Your task to perform on an android device: add a contact in the contacts app Image 0: 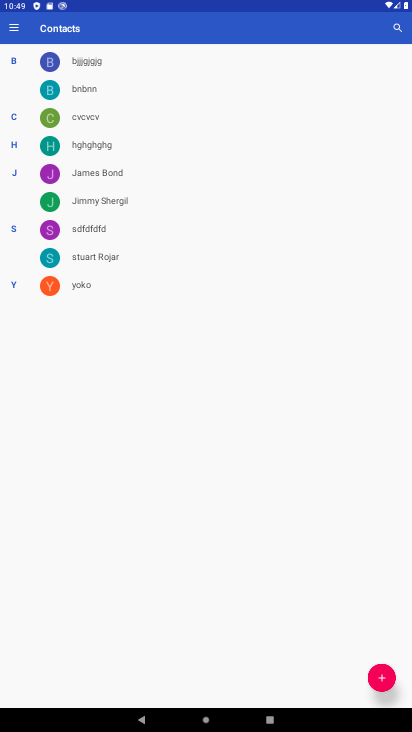
Step 0: press home button
Your task to perform on an android device: add a contact in the contacts app Image 1: 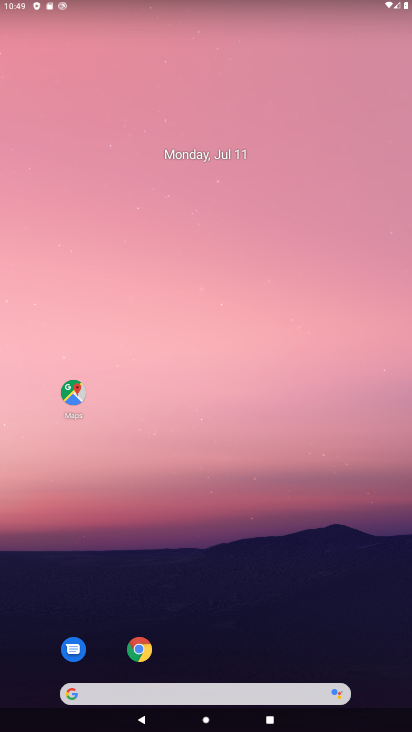
Step 1: drag from (204, 691) to (148, 215)
Your task to perform on an android device: add a contact in the contacts app Image 2: 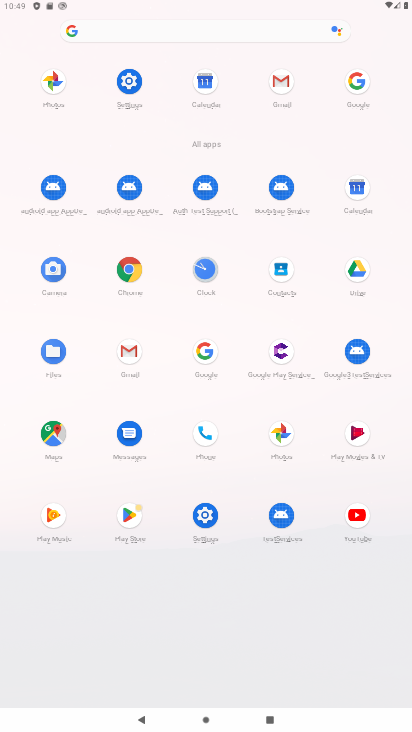
Step 2: click (281, 271)
Your task to perform on an android device: add a contact in the contacts app Image 3: 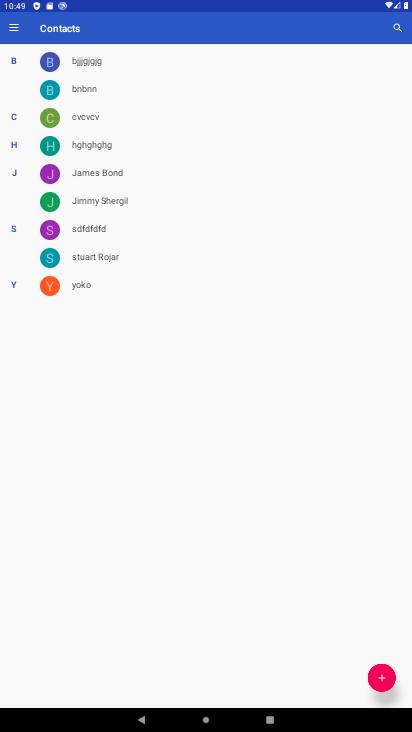
Step 3: click (382, 677)
Your task to perform on an android device: add a contact in the contacts app Image 4: 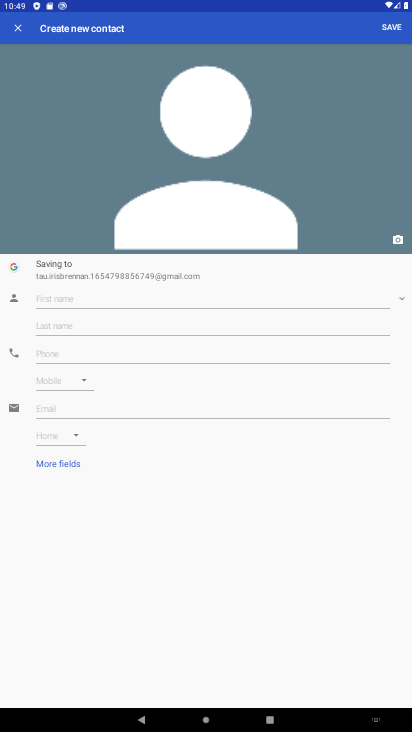
Step 4: click (159, 292)
Your task to perform on an android device: add a contact in the contacts app Image 5: 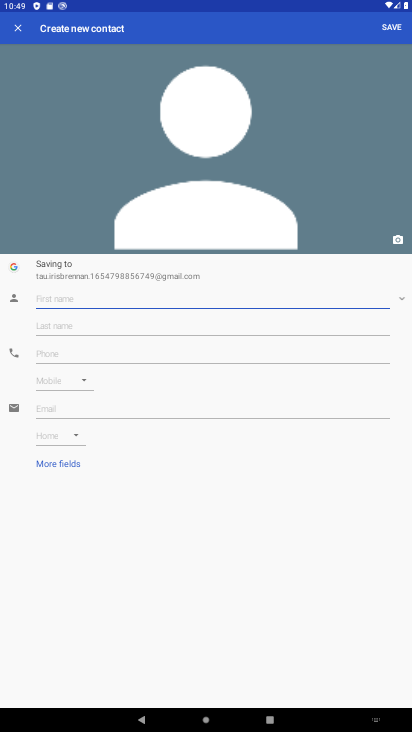
Step 5: type "Daisy"
Your task to perform on an android device: add a contact in the contacts app Image 6: 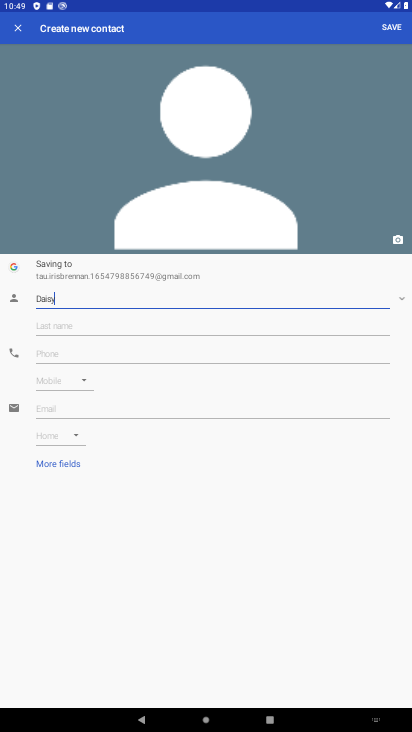
Step 6: click (144, 323)
Your task to perform on an android device: add a contact in the contacts app Image 7: 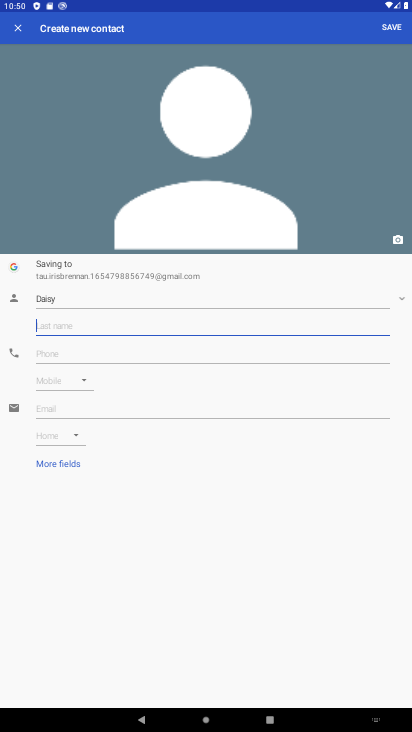
Step 7: type "souloon"
Your task to perform on an android device: add a contact in the contacts app Image 8: 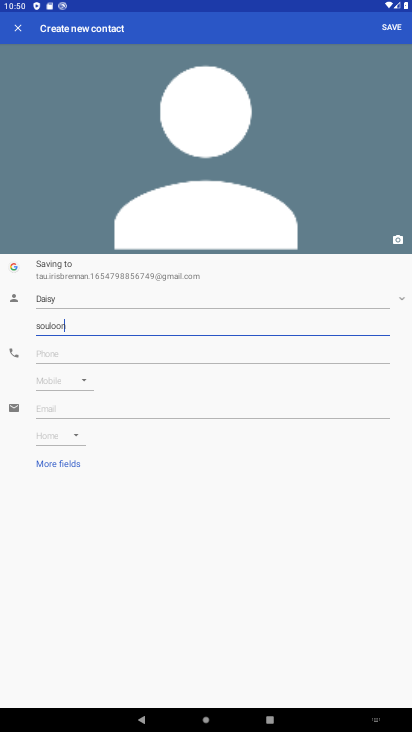
Step 8: click (86, 344)
Your task to perform on an android device: add a contact in the contacts app Image 9: 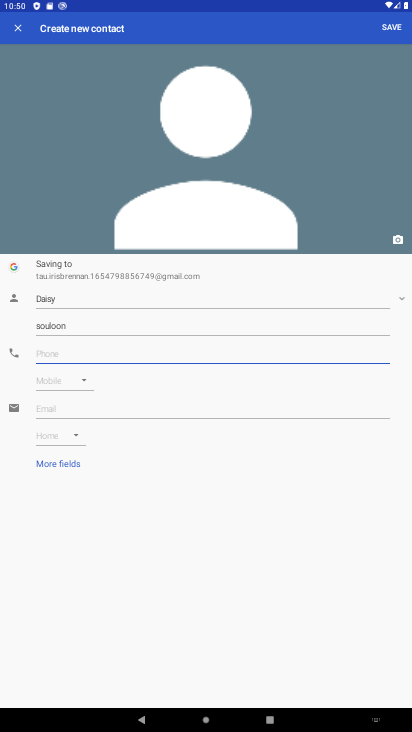
Step 9: type "0991122337766"
Your task to perform on an android device: add a contact in the contacts app Image 10: 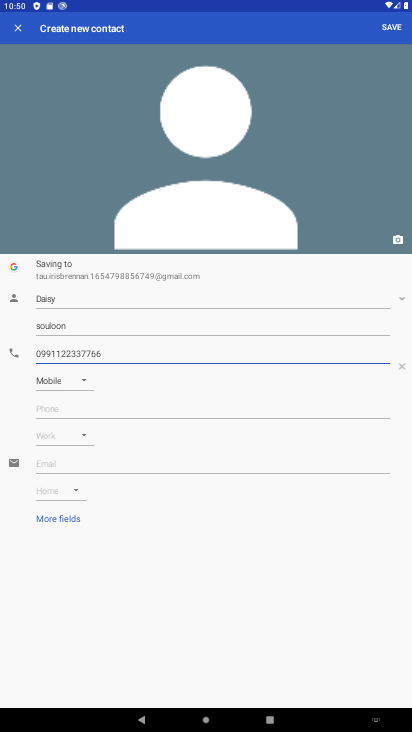
Step 10: click (390, 34)
Your task to perform on an android device: add a contact in the contacts app Image 11: 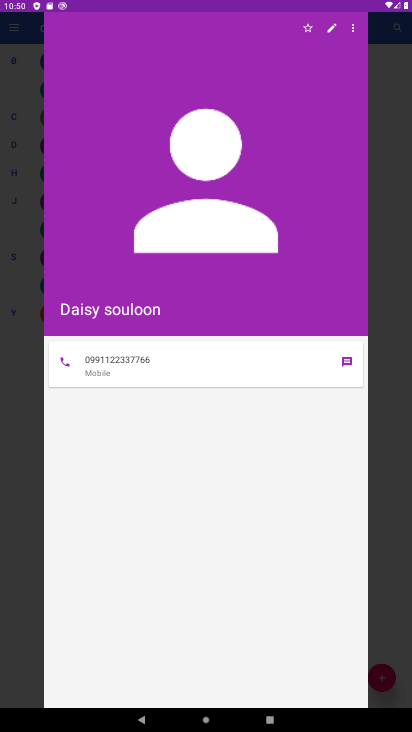
Step 11: task complete